Your task to perform on an android device: Turn off the flashlight Image 0: 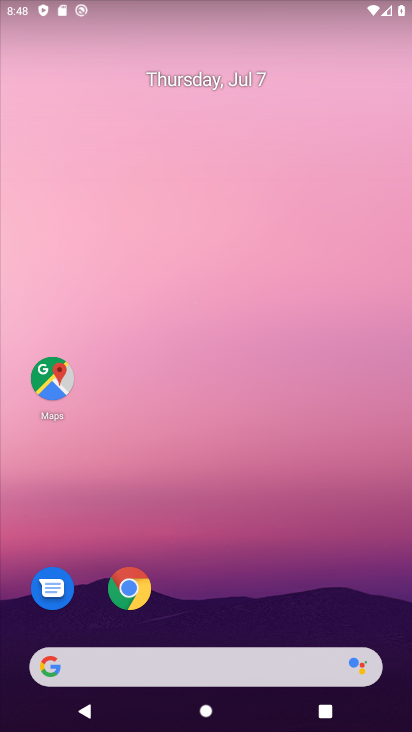
Step 0: click (222, 122)
Your task to perform on an android device: Turn off the flashlight Image 1: 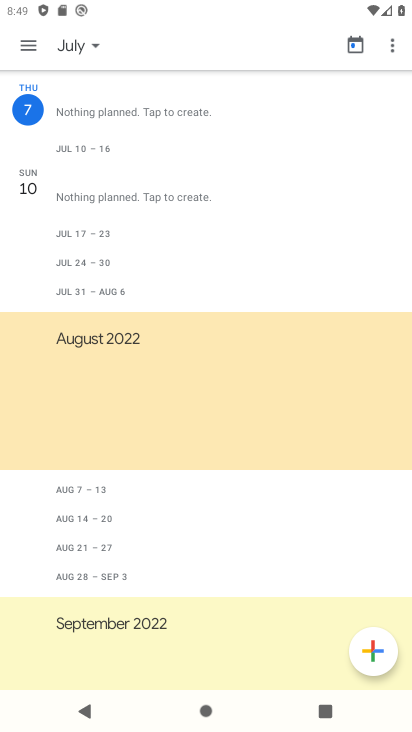
Step 1: press home button
Your task to perform on an android device: Turn off the flashlight Image 2: 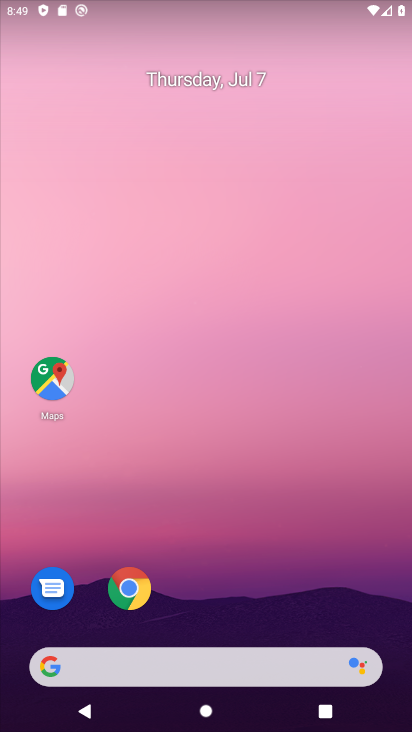
Step 2: drag from (227, 629) to (213, 29)
Your task to perform on an android device: Turn off the flashlight Image 3: 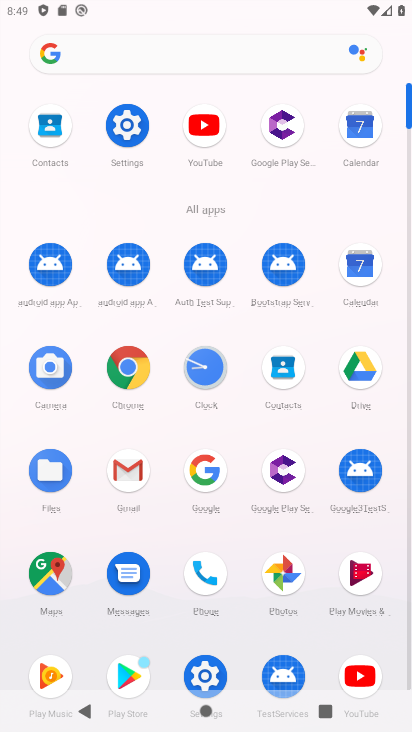
Step 3: click (122, 119)
Your task to perform on an android device: Turn off the flashlight Image 4: 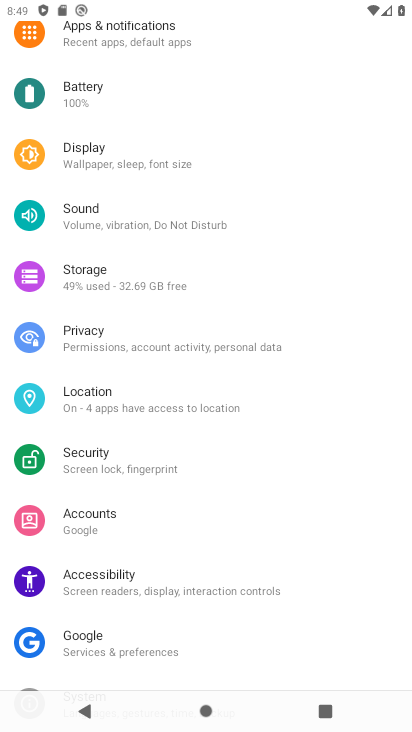
Step 4: drag from (158, 96) to (185, 498)
Your task to perform on an android device: Turn off the flashlight Image 5: 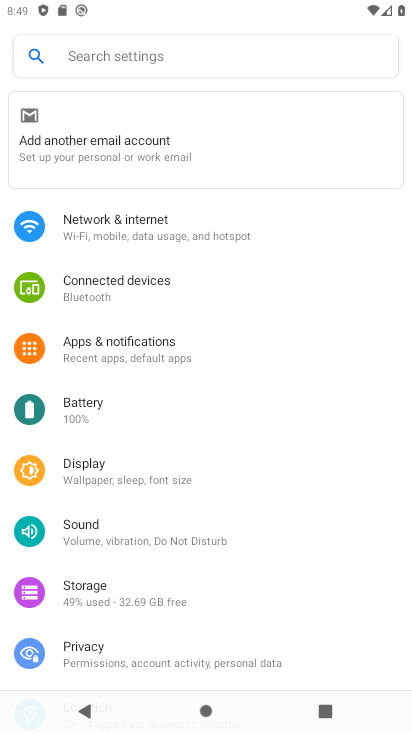
Step 5: click (143, 50)
Your task to perform on an android device: Turn off the flashlight Image 6: 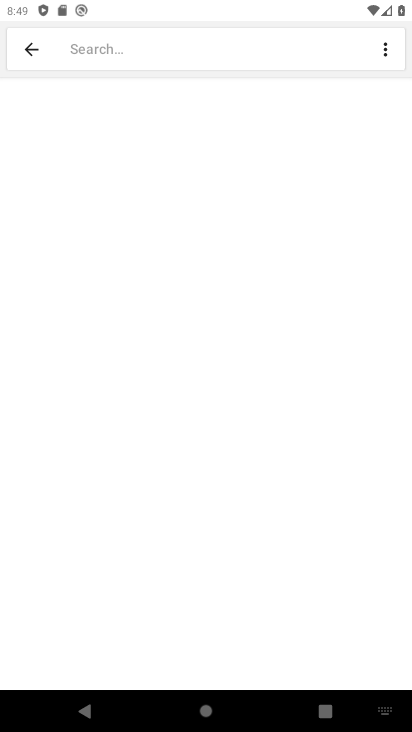
Step 6: type "flashlight"
Your task to perform on an android device: Turn off the flashlight Image 7: 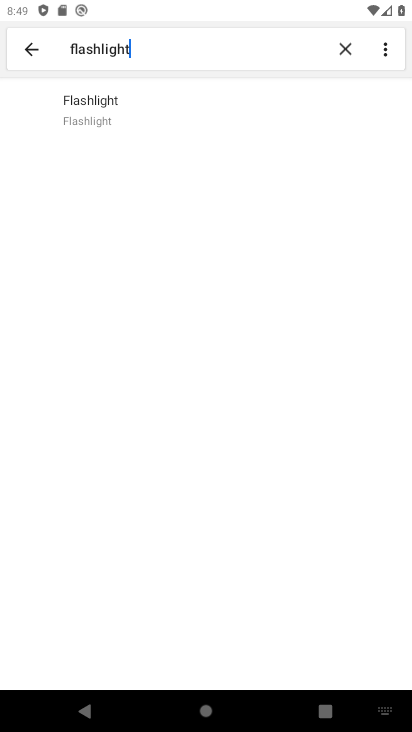
Step 7: click (115, 108)
Your task to perform on an android device: Turn off the flashlight Image 8: 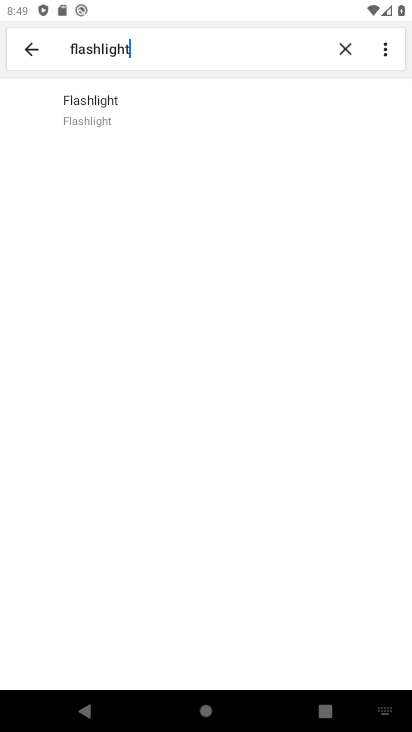
Step 8: task complete